Your task to perform on an android device: add a contact Image 0: 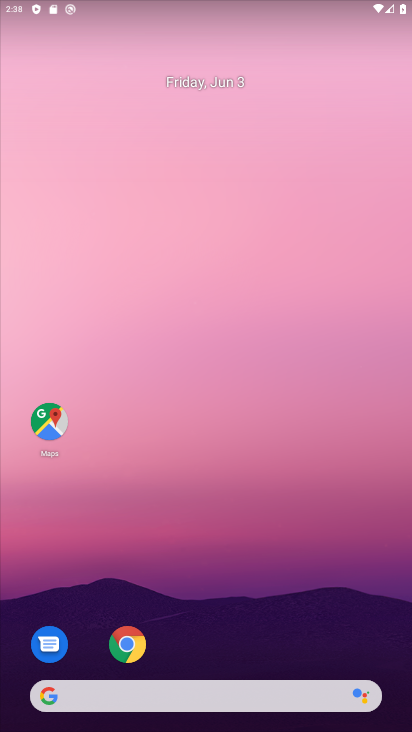
Step 0: press back button
Your task to perform on an android device: add a contact Image 1: 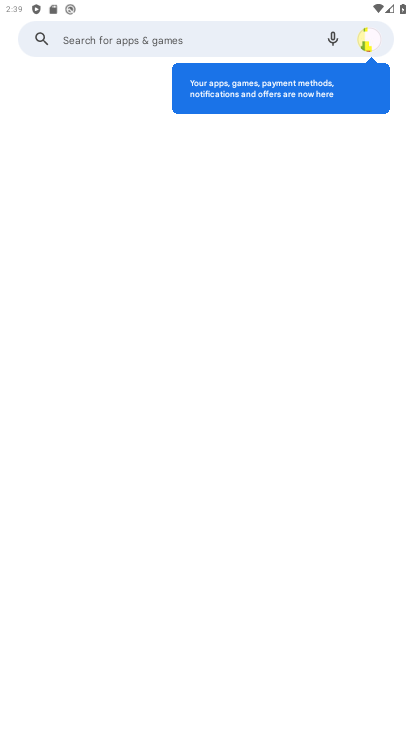
Step 1: drag from (372, 649) to (312, 335)
Your task to perform on an android device: add a contact Image 2: 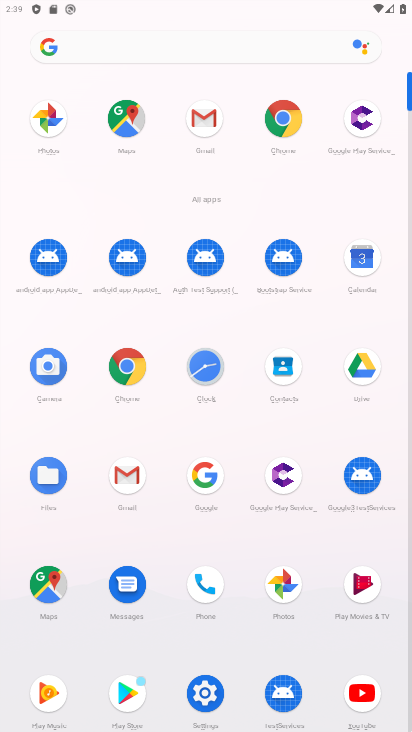
Step 2: click (205, 597)
Your task to perform on an android device: add a contact Image 3: 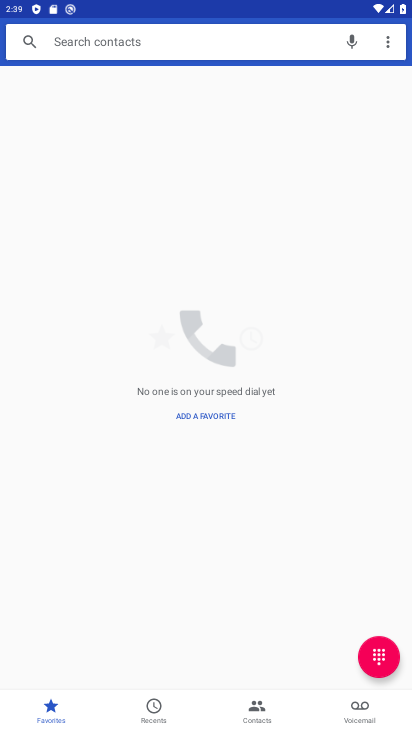
Step 3: click (243, 716)
Your task to perform on an android device: add a contact Image 4: 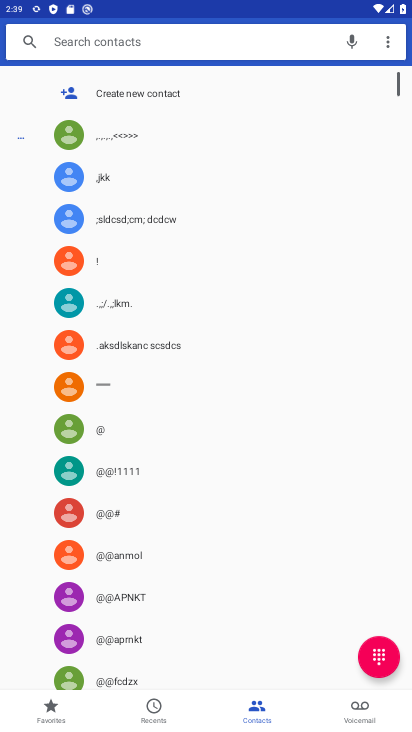
Step 4: click (137, 89)
Your task to perform on an android device: add a contact Image 5: 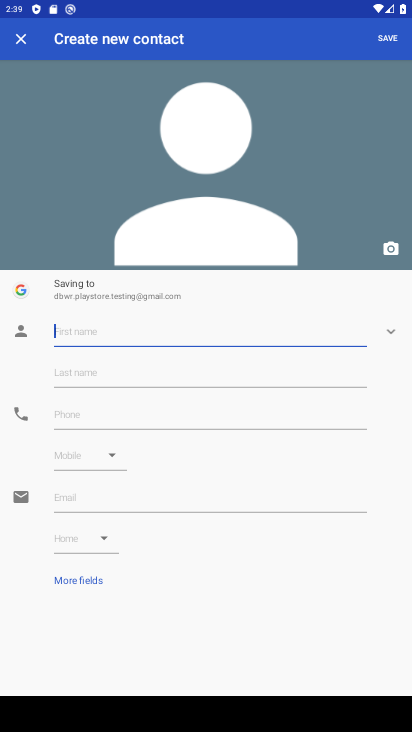
Step 5: type "swerr34r5356567"
Your task to perform on an android device: add a contact Image 6: 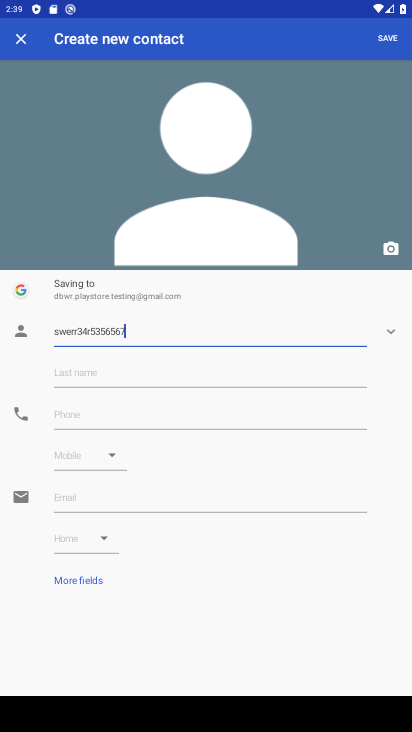
Step 6: click (124, 410)
Your task to perform on an android device: add a contact Image 7: 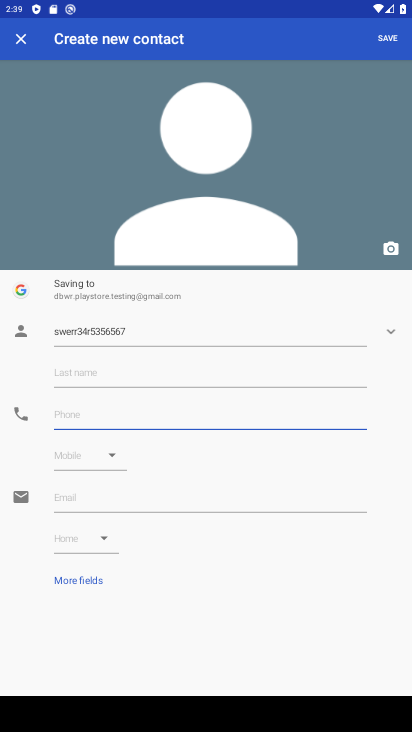
Step 7: click (124, 410)
Your task to perform on an android device: add a contact Image 8: 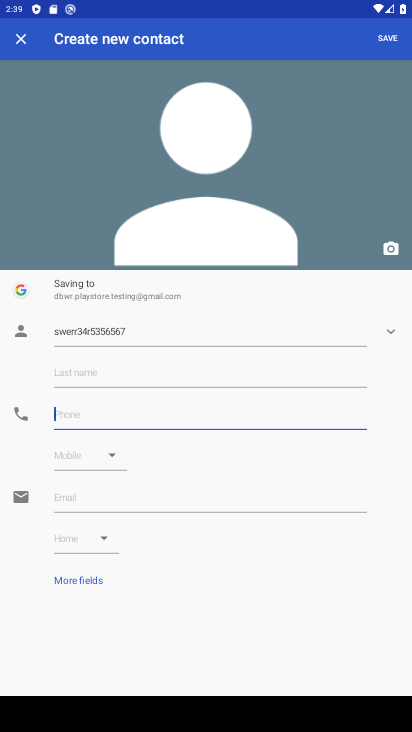
Step 8: type "987654676545676543"
Your task to perform on an android device: add a contact Image 9: 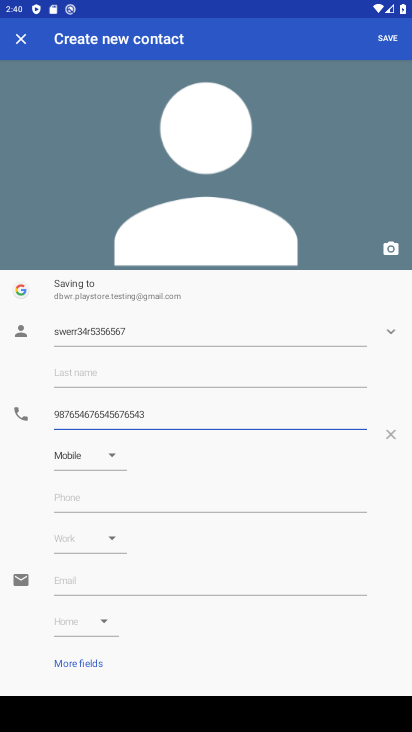
Step 9: click (144, 40)
Your task to perform on an android device: add a contact Image 10: 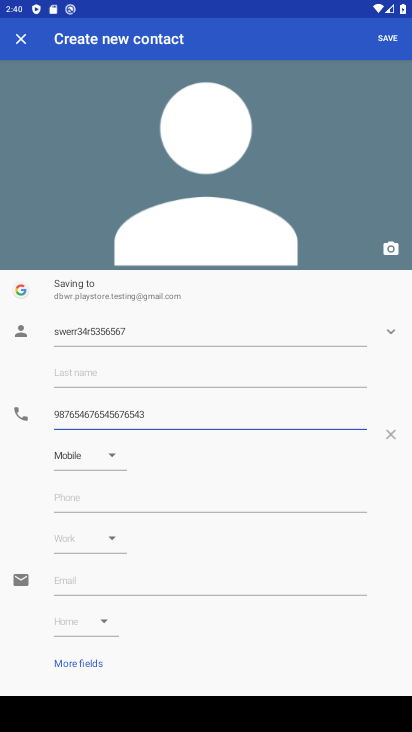
Step 10: click (389, 36)
Your task to perform on an android device: add a contact Image 11: 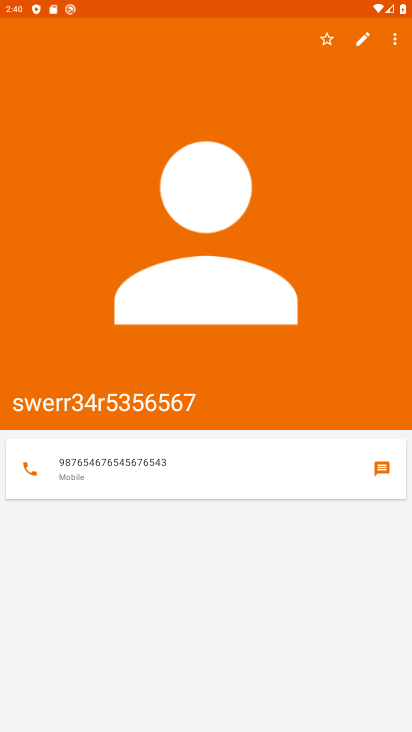
Step 11: task complete